Your task to perform on an android device: toggle sleep mode Image 0: 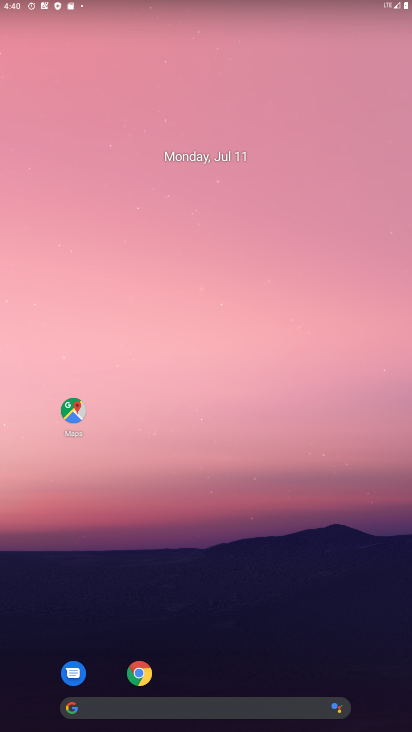
Step 0: drag from (224, 674) to (204, 141)
Your task to perform on an android device: toggle sleep mode Image 1: 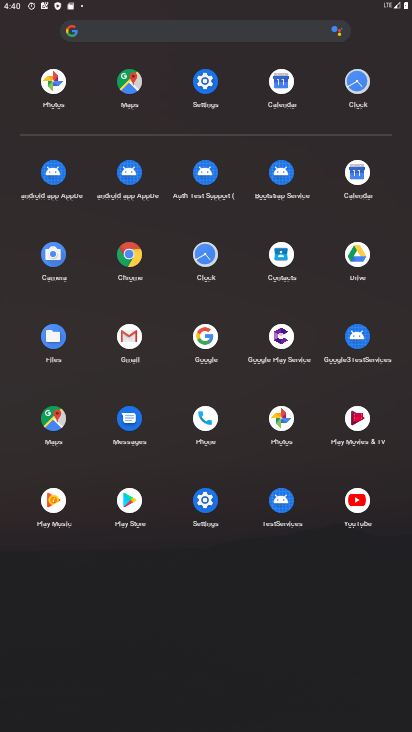
Step 1: click (206, 81)
Your task to perform on an android device: toggle sleep mode Image 2: 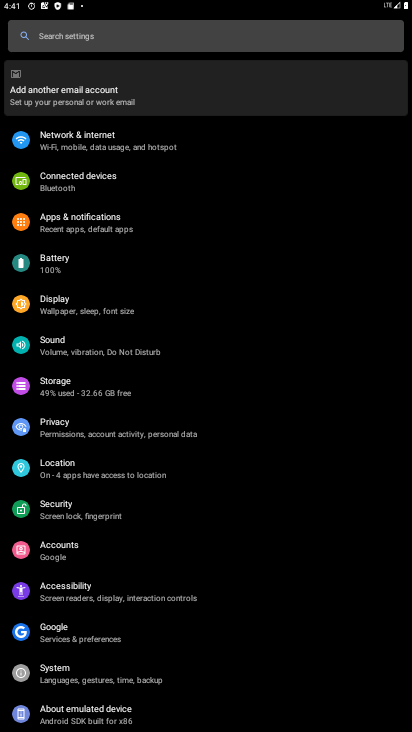
Step 2: click (73, 224)
Your task to perform on an android device: toggle sleep mode Image 3: 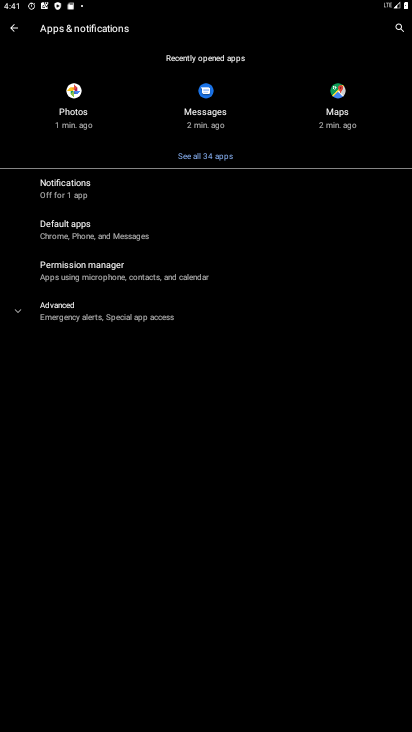
Step 3: click (77, 191)
Your task to perform on an android device: toggle sleep mode Image 4: 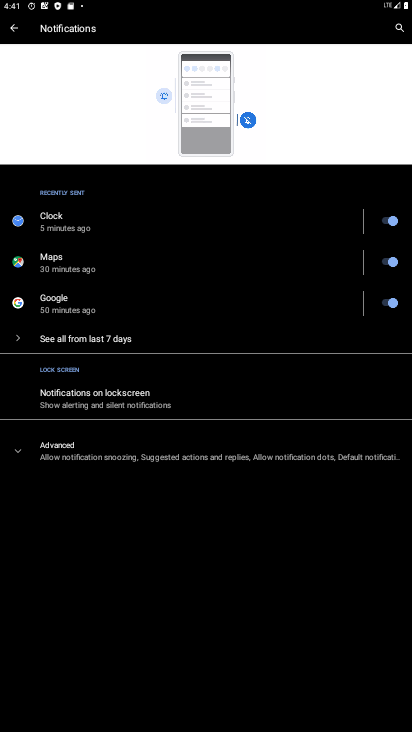
Step 4: press back button
Your task to perform on an android device: toggle sleep mode Image 5: 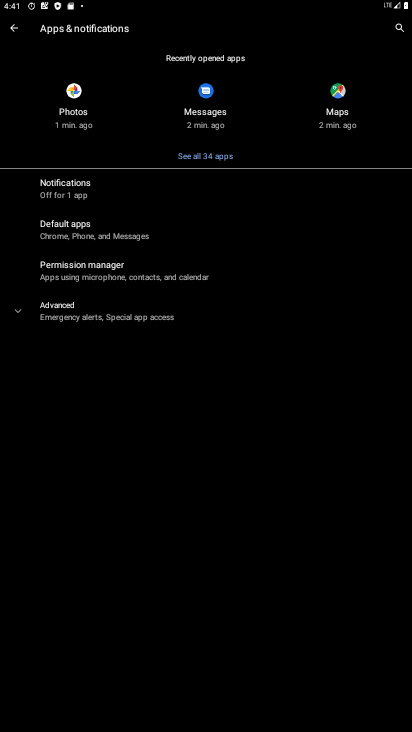
Step 5: press back button
Your task to perform on an android device: toggle sleep mode Image 6: 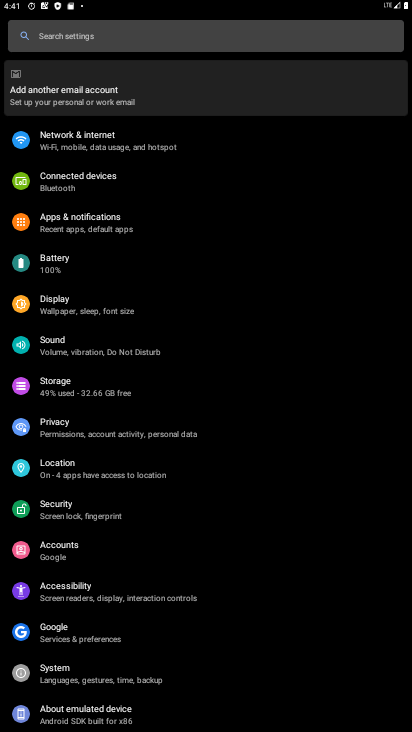
Step 6: click (98, 314)
Your task to perform on an android device: toggle sleep mode Image 7: 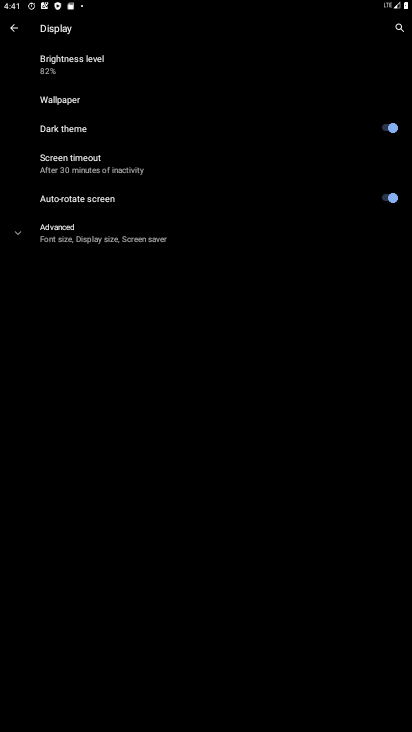
Step 7: click (83, 243)
Your task to perform on an android device: toggle sleep mode Image 8: 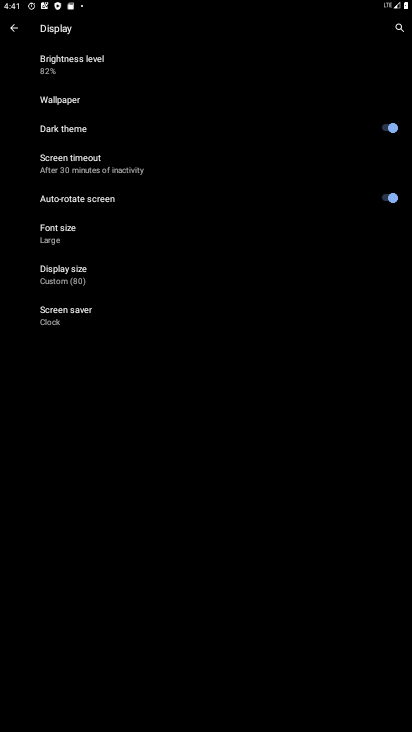
Step 8: task complete